Your task to perform on an android device: turn on priority inbox in the gmail app Image 0: 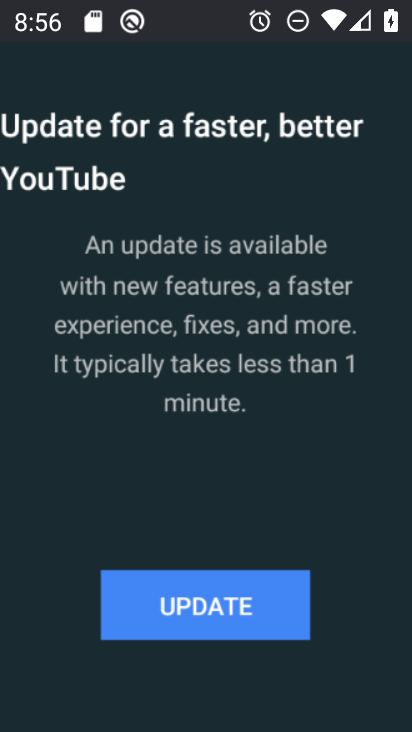
Step 0: drag from (182, 586) to (224, 116)
Your task to perform on an android device: turn on priority inbox in the gmail app Image 1: 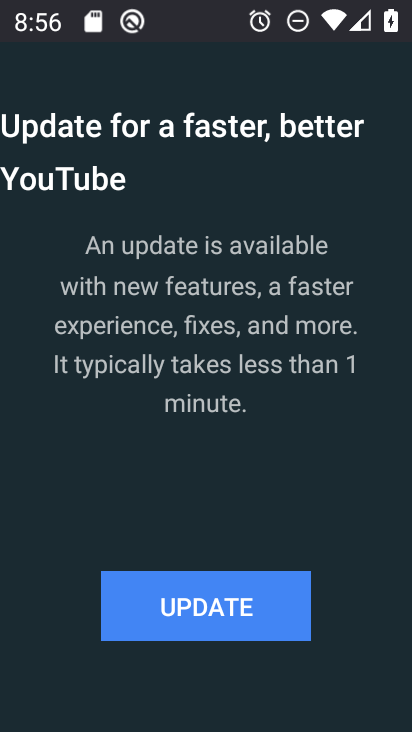
Step 1: press home button
Your task to perform on an android device: turn on priority inbox in the gmail app Image 2: 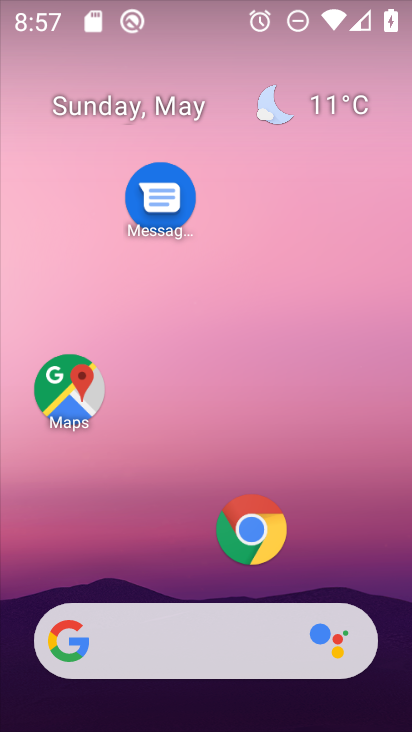
Step 2: drag from (202, 585) to (271, 47)
Your task to perform on an android device: turn on priority inbox in the gmail app Image 3: 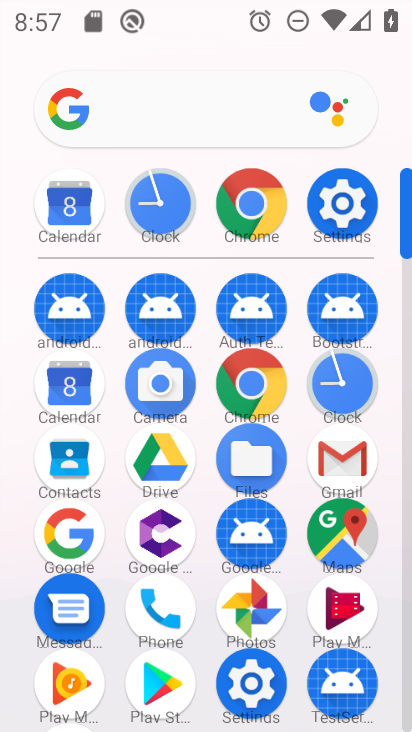
Step 3: click (342, 450)
Your task to perform on an android device: turn on priority inbox in the gmail app Image 4: 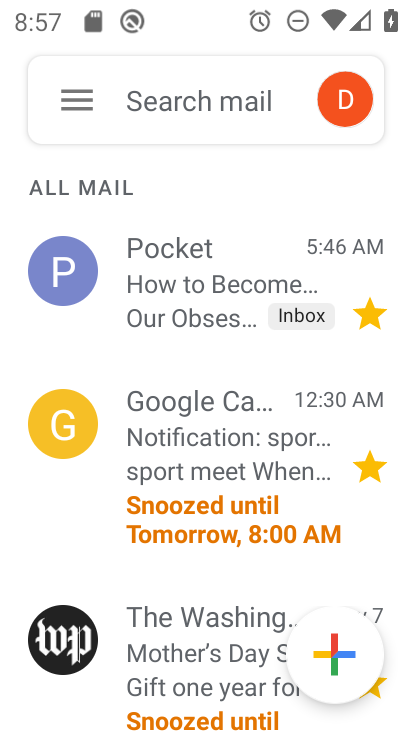
Step 4: click (71, 103)
Your task to perform on an android device: turn on priority inbox in the gmail app Image 5: 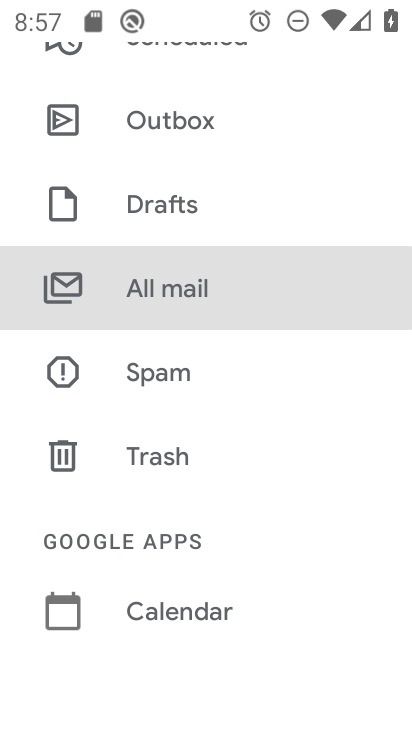
Step 5: drag from (171, 608) to (199, 141)
Your task to perform on an android device: turn on priority inbox in the gmail app Image 6: 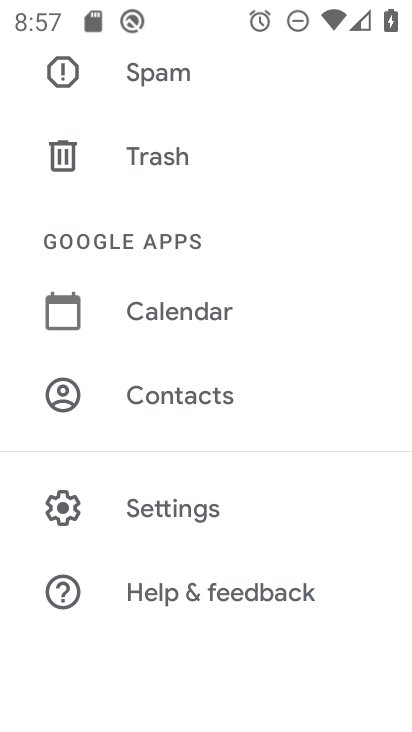
Step 6: click (101, 501)
Your task to perform on an android device: turn on priority inbox in the gmail app Image 7: 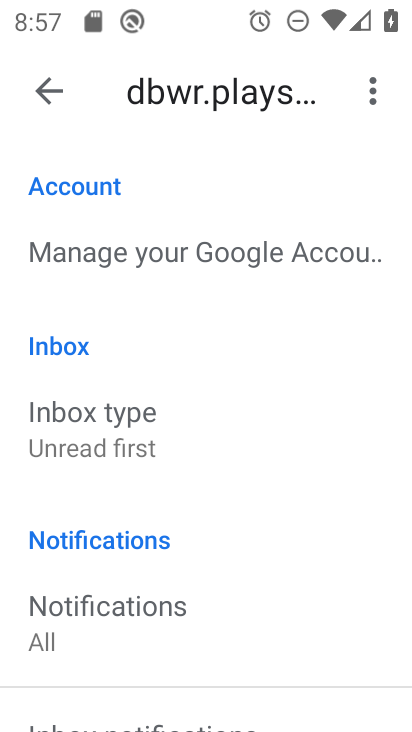
Step 7: click (172, 421)
Your task to perform on an android device: turn on priority inbox in the gmail app Image 8: 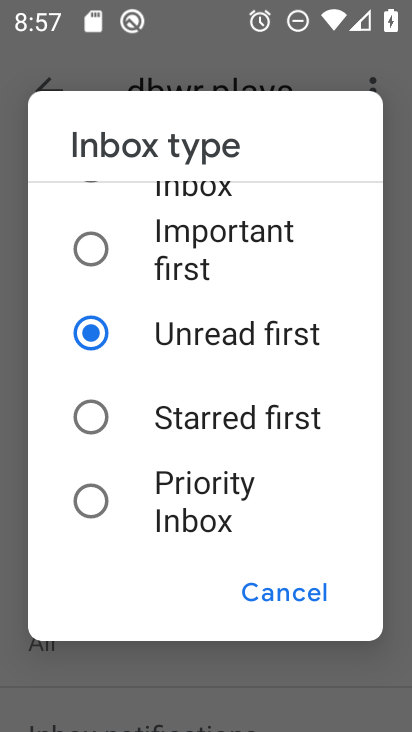
Step 8: click (89, 497)
Your task to perform on an android device: turn on priority inbox in the gmail app Image 9: 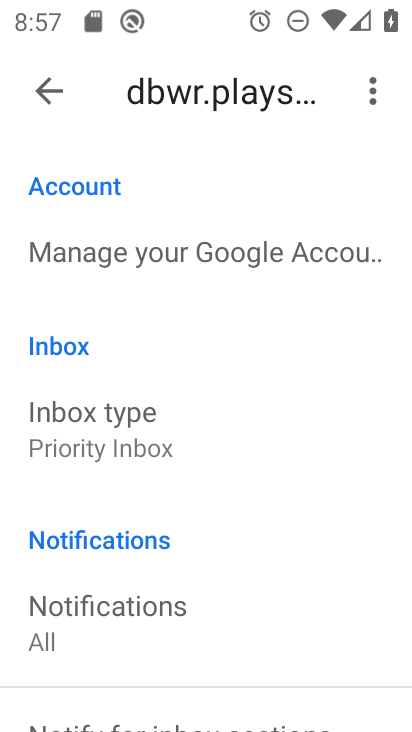
Step 9: task complete